Your task to perform on an android device: Open Google Maps Image 0: 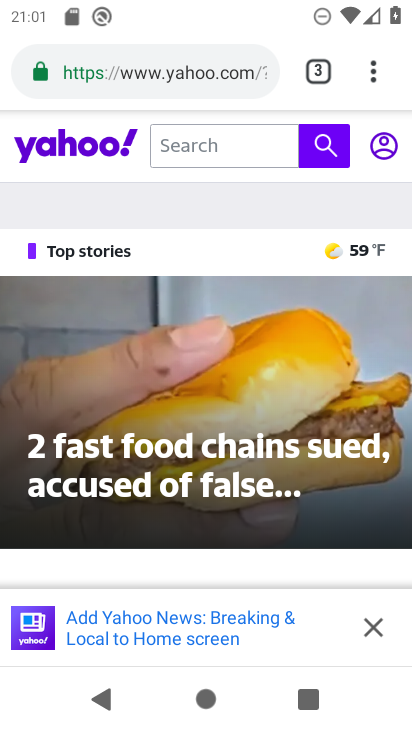
Step 0: press home button
Your task to perform on an android device: Open Google Maps Image 1: 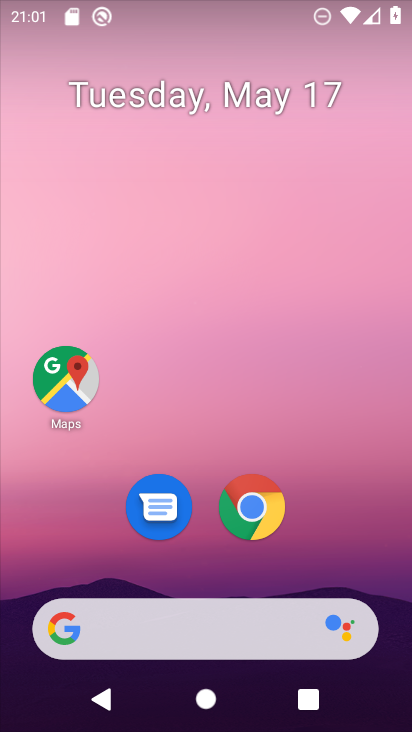
Step 1: click (66, 377)
Your task to perform on an android device: Open Google Maps Image 2: 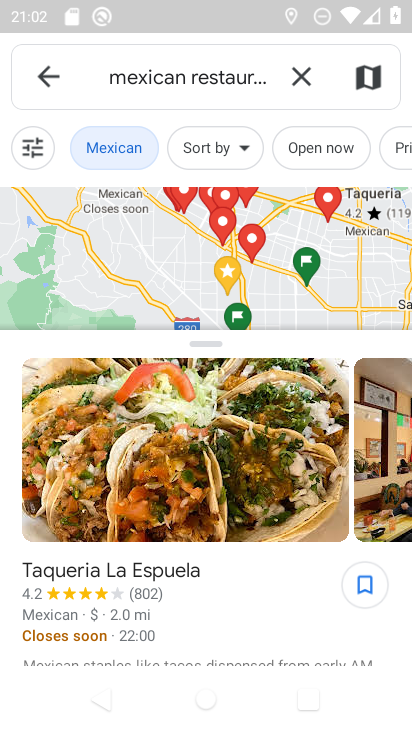
Step 2: task complete